Your task to perform on an android device: delete a single message in the gmail app Image 0: 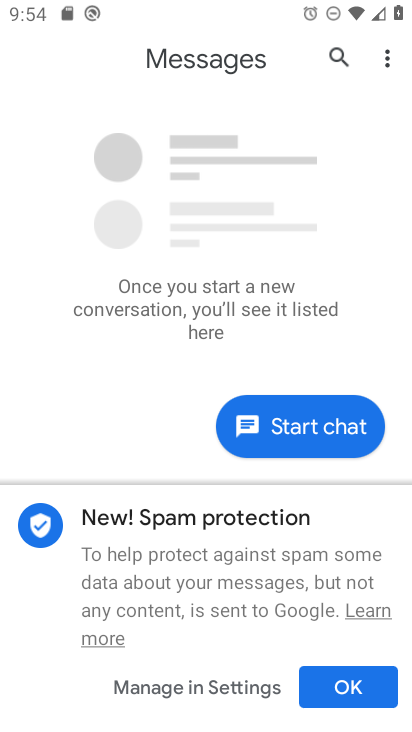
Step 0: press home button
Your task to perform on an android device: delete a single message in the gmail app Image 1: 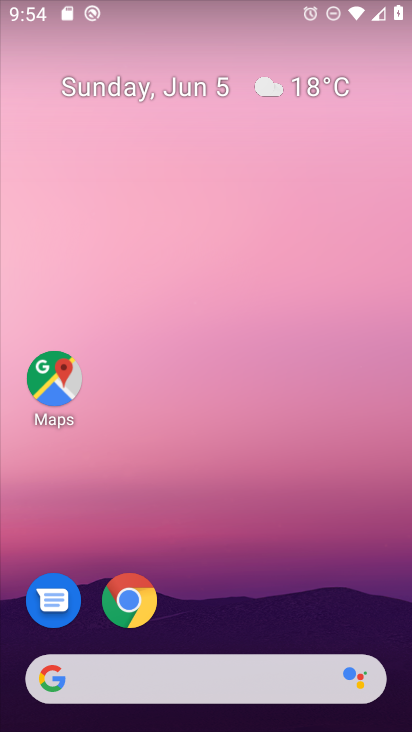
Step 1: drag from (204, 585) to (201, 63)
Your task to perform on an android device: delete a single message in the gmail app Image 2: 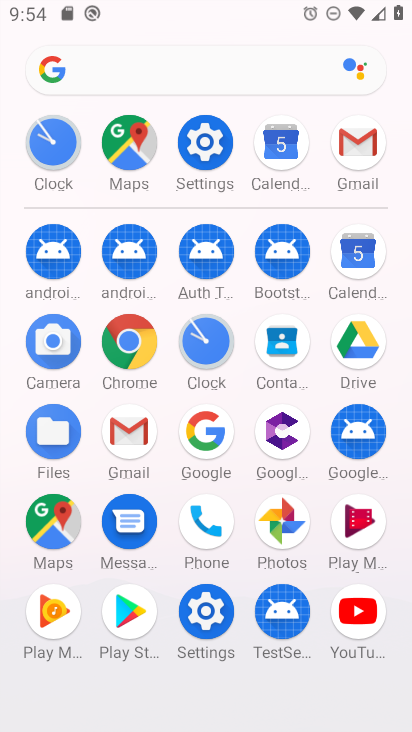
Step 2: click (345, 144)
Your task to perform on an android device: delete a single message in the gmail app Image 3: 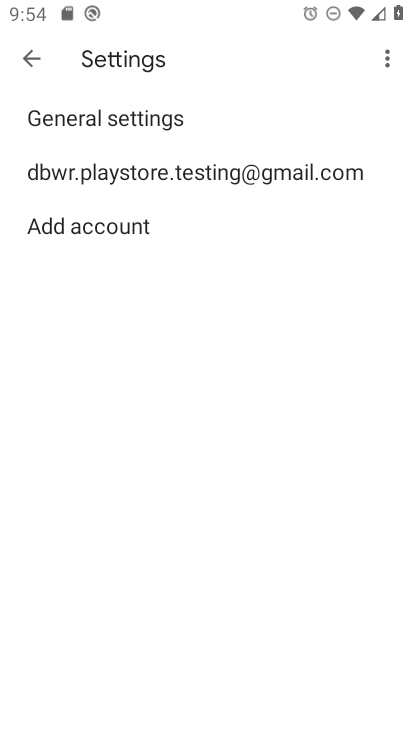
Step 3: click (38, 55)
Your task to perform on an android device: delete a single message in the gmail app Image 4: 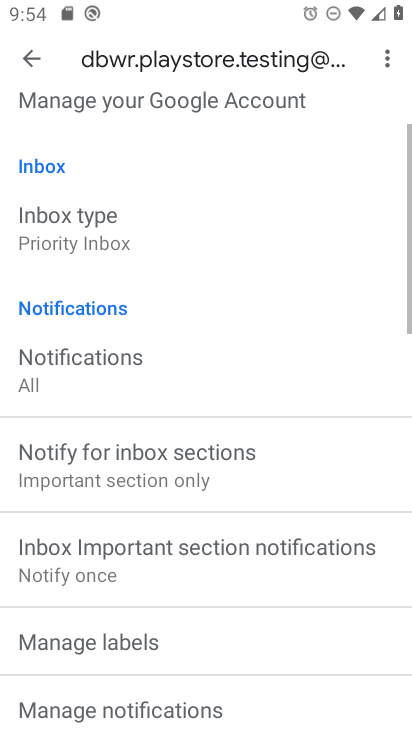
Step 4: click (38, 55)
Your task to perform on an android device: delete a single message in the gmail app Image 5: 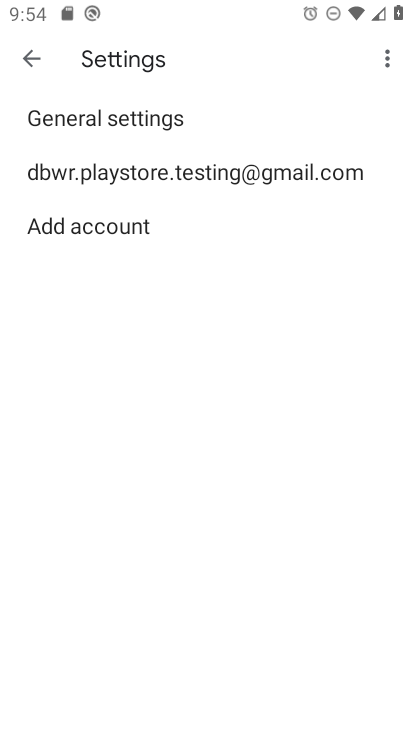
Step 5: click (31, 54)
Your task to perform on an android device: delete a single message in the gmail app Image 6: 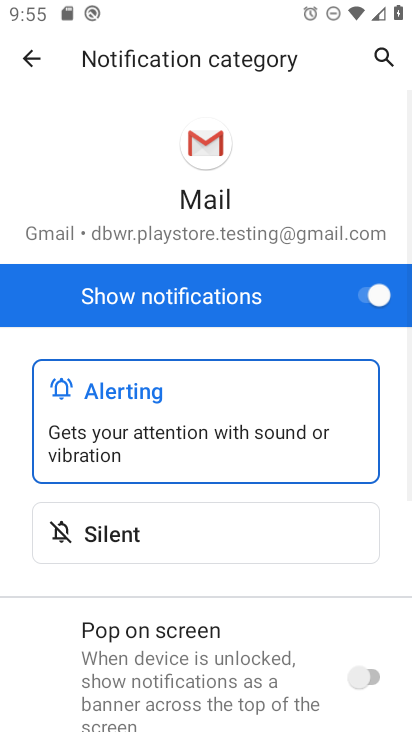
Step 6: click (31, 54)
Your task to perform on an android device: delete a single message in the gmail app Image 7: 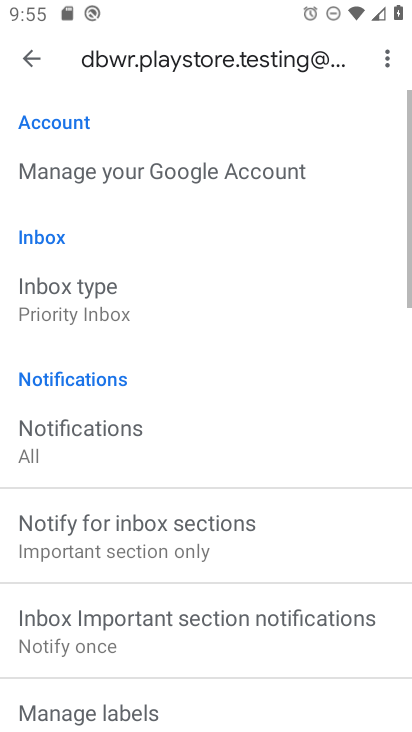
Step 7: click (24, 56)
Your task to perform on an android device: delete a single message in the gmail app Image 8: 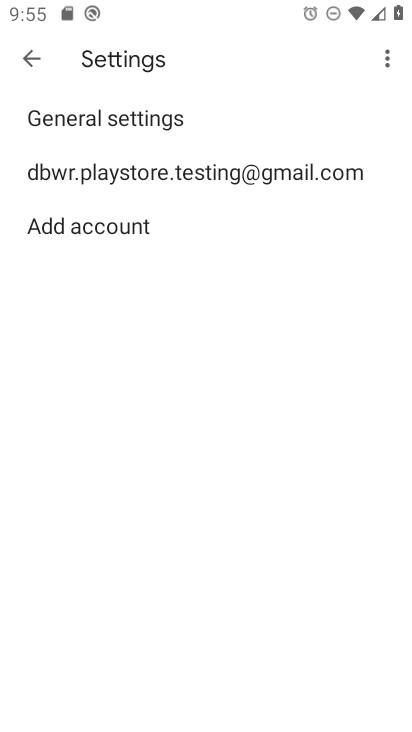
Step 8: click (29, 47)
Your task to perform on an android device: delete a single message in the gmail app Image 9: 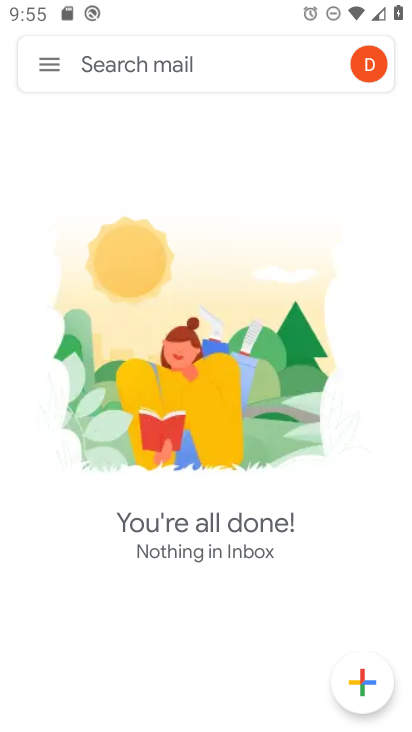
Step 9: click (51, 63)
Your task to perform on an android device: delete a single message in the gmail app Image 10: 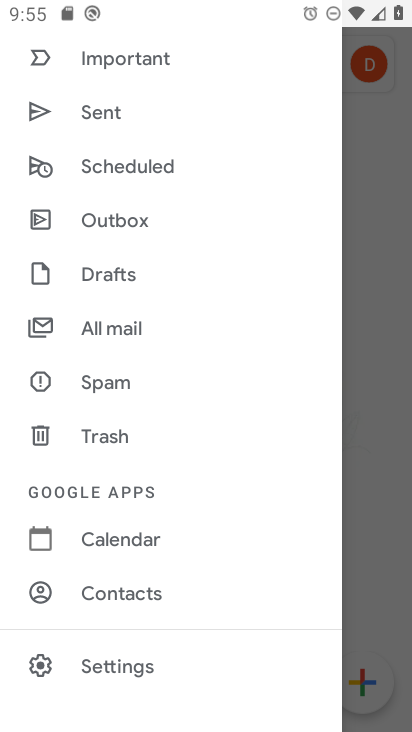
Step 10: click (110, 317)
Your task to perform on an android device: delete a single message in the gmail app Image 11: 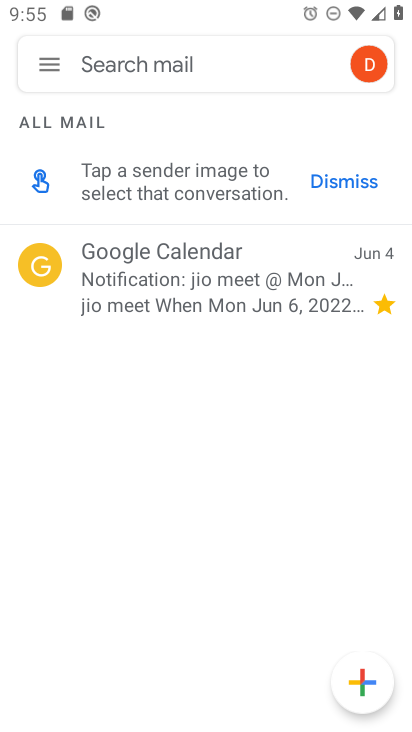
Step 11: click (151, 284)
Your task to perform on an android device: delete a single message in the gmail app Image 12: 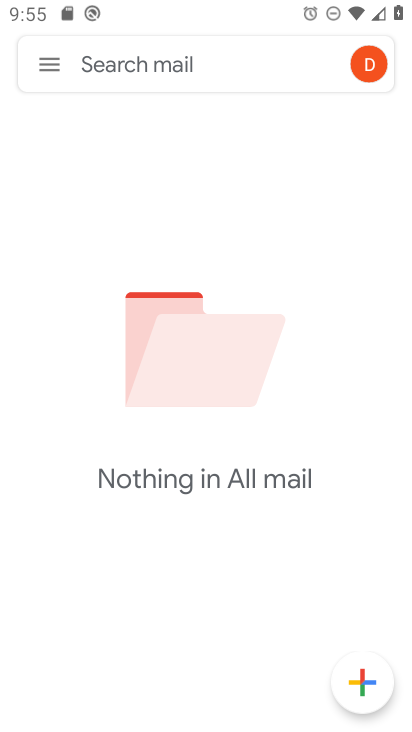
Step 12: task complete